Your task to perform on an android device: open a bookmark in the chrome app Image 0: 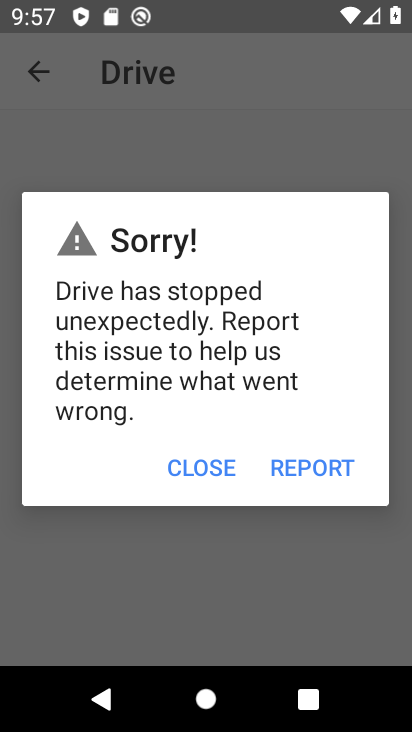
Step 0: press home button
Your task to perform on an android device: open a bookmark in the chrome app Image 1: 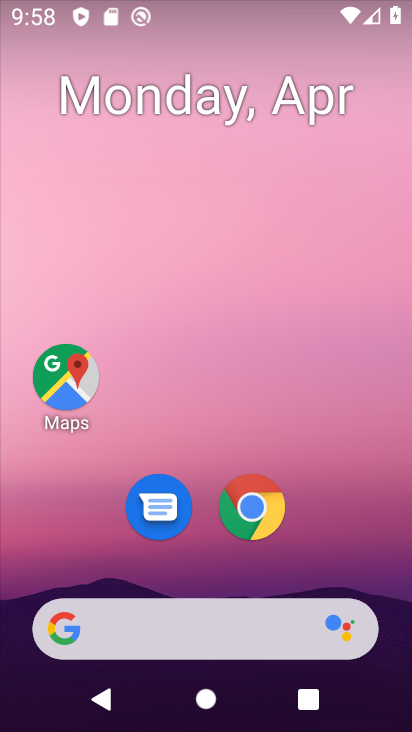
Step 1: click (260, 498)
Your task to perform on an android device: open a bookmark in the chrome app Image 2: 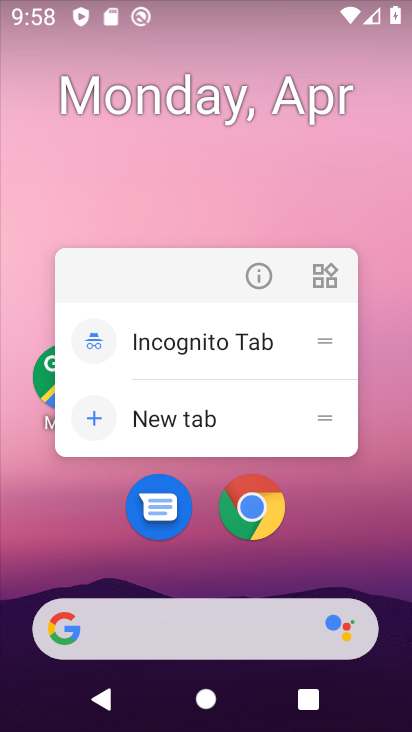
Step 2: click (260, 498)
Your task to perform on an android device: open a bookmark in the chrome app Image 3: 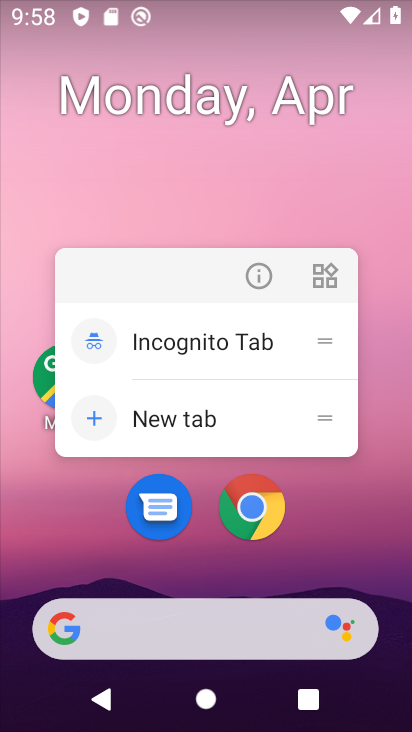
Step 3: click (260, 498)
Your task to perform on an android device: open a bookmark in the chrome app Image 4: 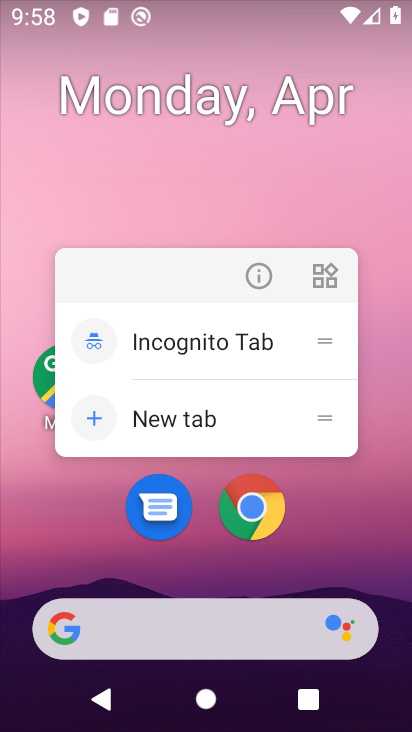
Step 4: click (260, 498)
Your task to perform on an android device: open a bookmark in the chrome app Image 5: 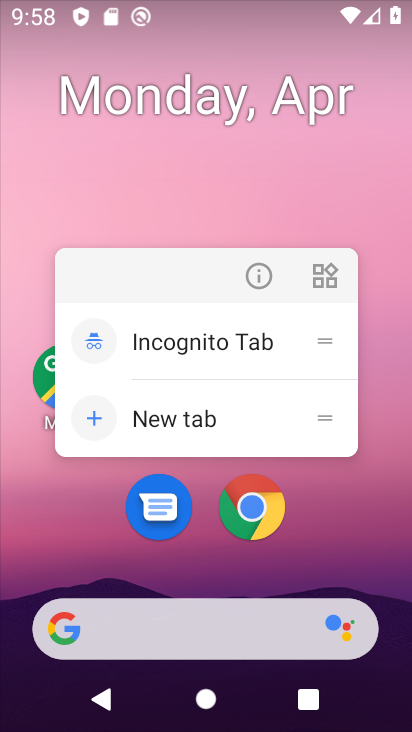
Step 5: click (260, 513)
Your task to perform on an android device: open a bookmark in the chrome app Image 6: 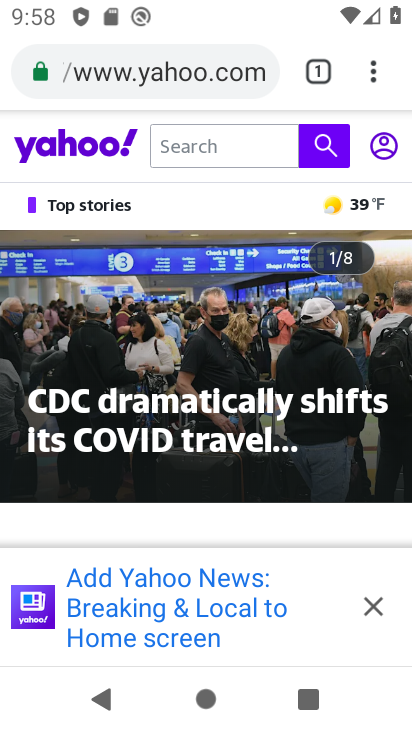
Step 6: click (377, 74)
Your task to perform on an android device: open a bookmark in the chrome app Image 7: 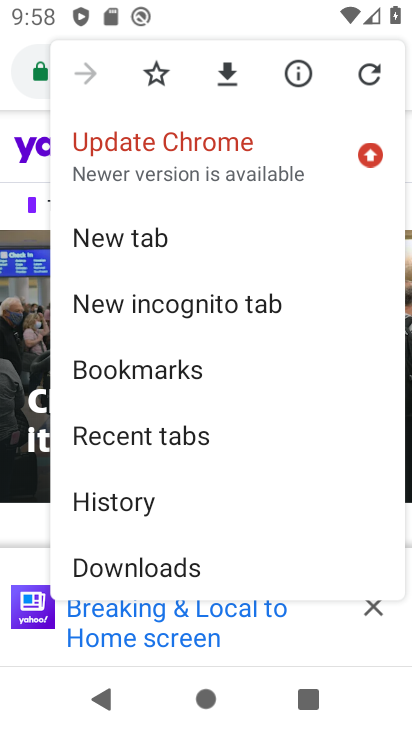
Step 7: click (187, 370)
Your task to perform on an android device: open a bookmark in the chrome app Image 8: 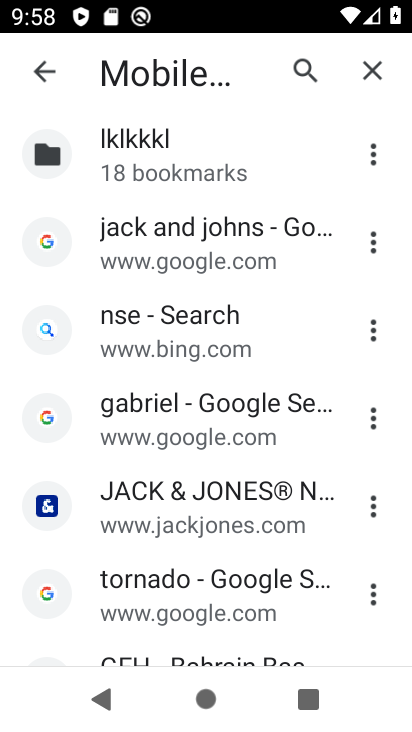
Step 8: click (228, 392)
Your task to perform on an android device: open a bookmark in the chrome app Image 9: 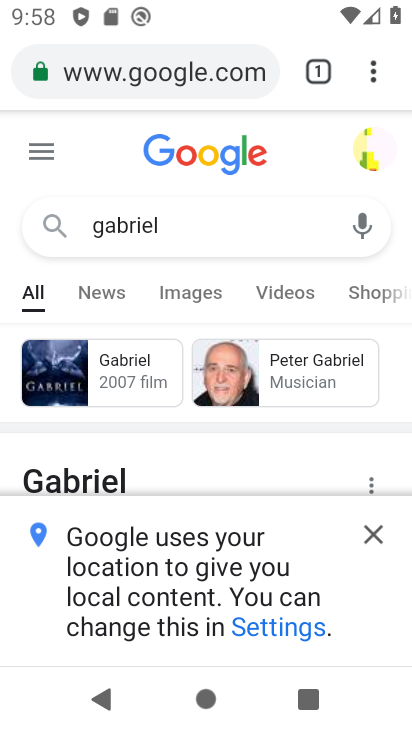
Step 9: task complete